Your task to perform on an android device: turn on the 24-hour format for clock Image 0: 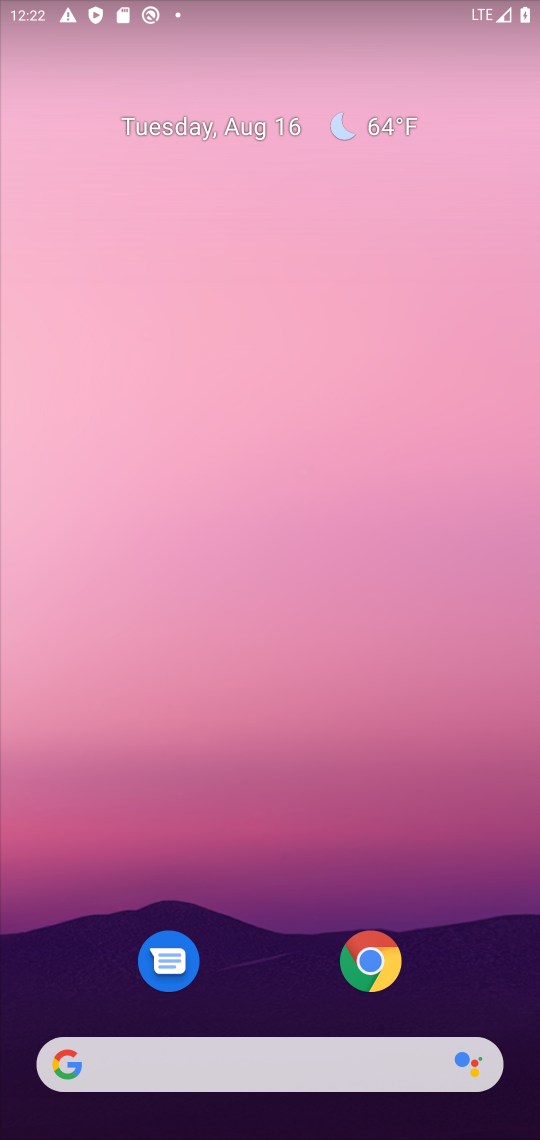
Step 0: drag from (191, 1038) to (258, 109)
Your task to perform on an android device: turn on the 24-hour format for clock Image 1: 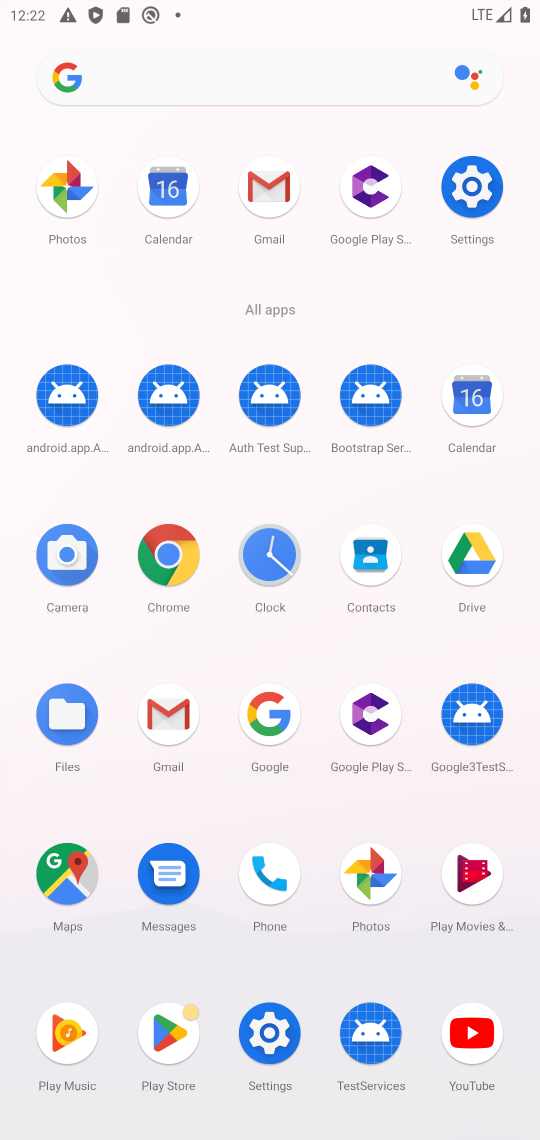
Step 1: click (275, 582)
Your task to perform on an android device: turn on the 24-hour format for clock Image 2: 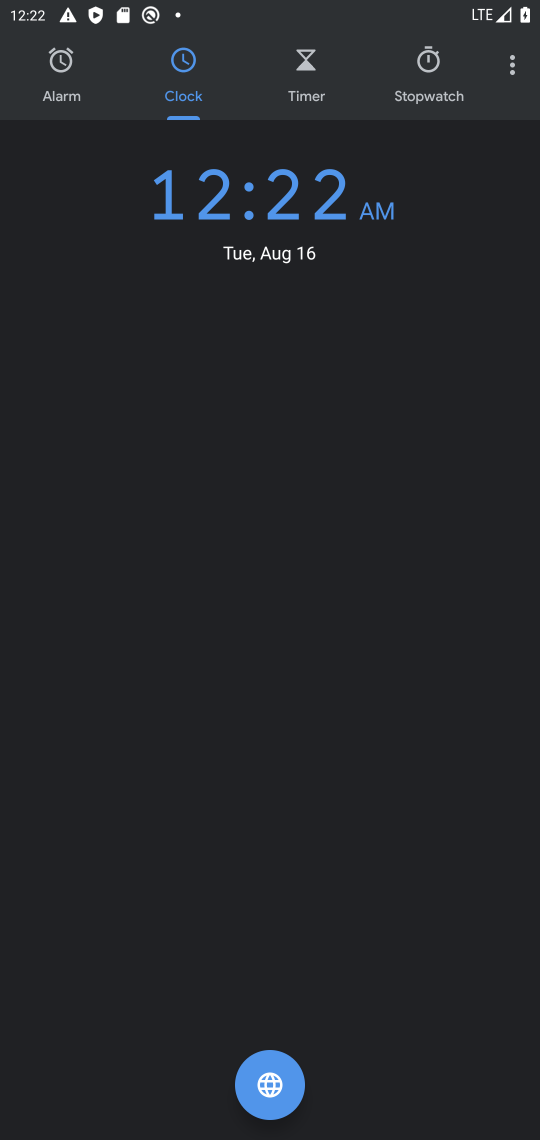
Step 2: click (515, 50)
Your task to perform on an android device: turn on the 24-hour format for clock Image 3: 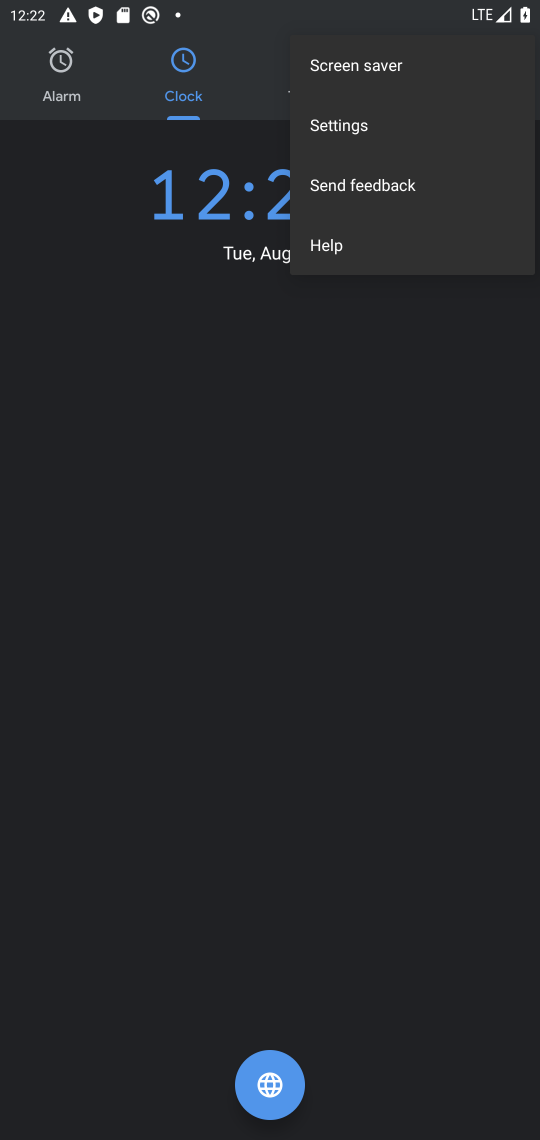
Step 3: click (322, 138)
Your task to perform on an android device: turn on the 24-hour format for clock Image 4: 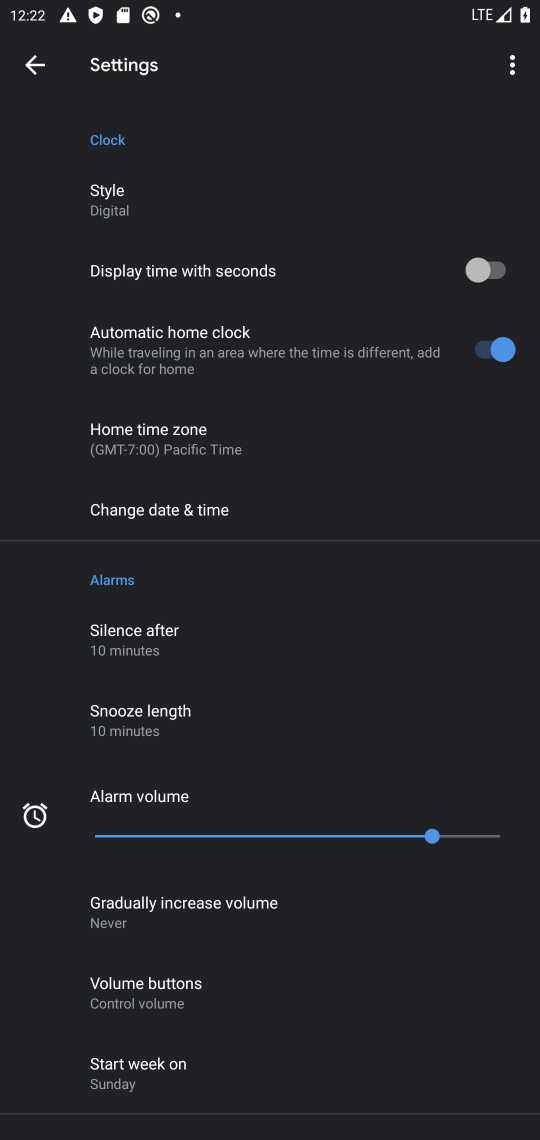
Step 4: click (80, 503)
Your task to perform on an android device: turn on the 24-hour format for clock Image 5: 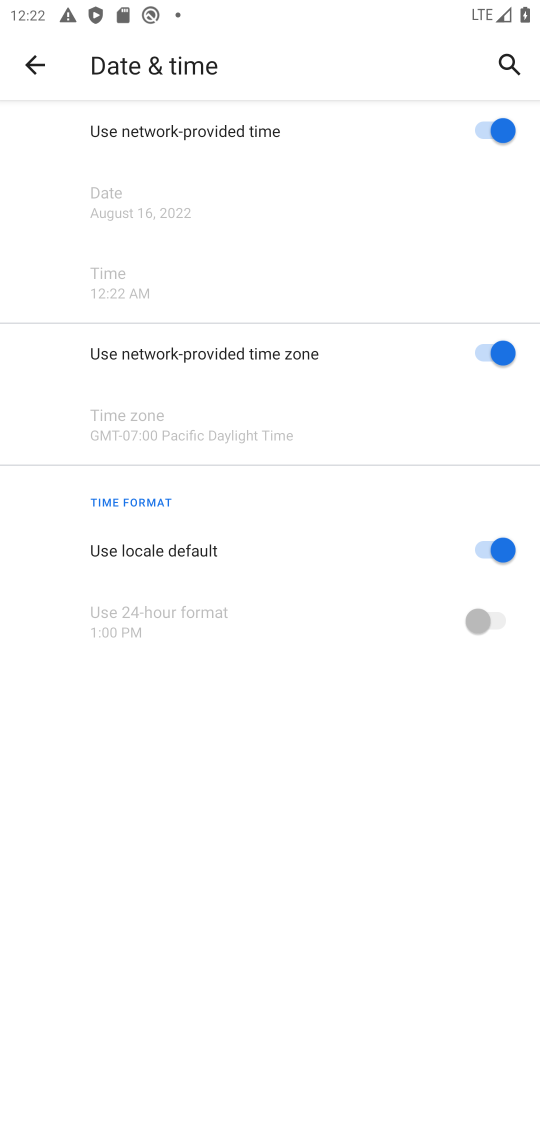
Step 5: click (446, 552)
Your task to perform on an android device: turn on the 24-hour format for clock Image 6: 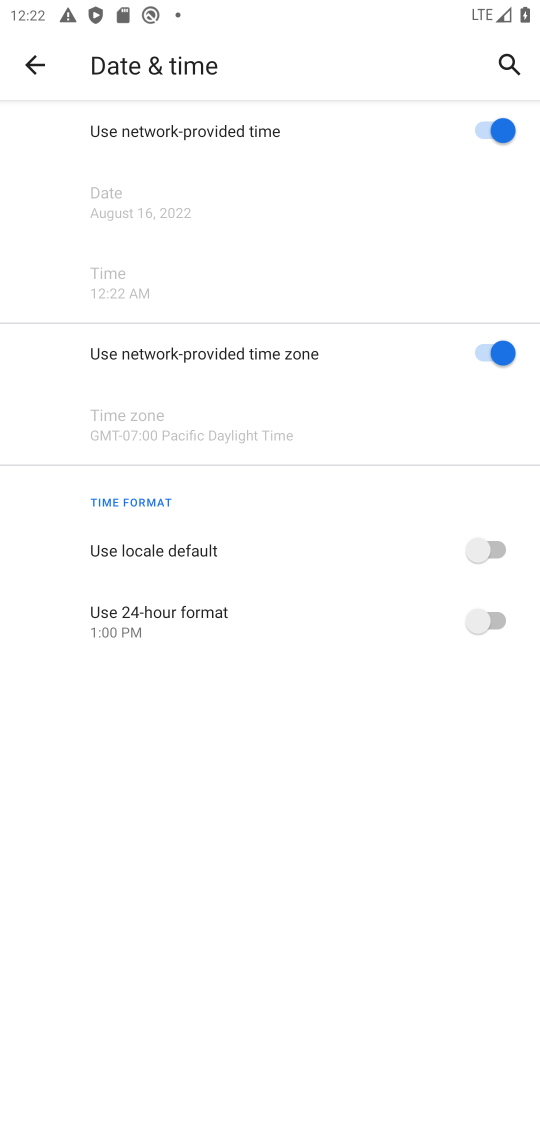
Step 6: click (401, 629)
Your task to perform on an android device: turn on the 24-hour format for clock Image 7: 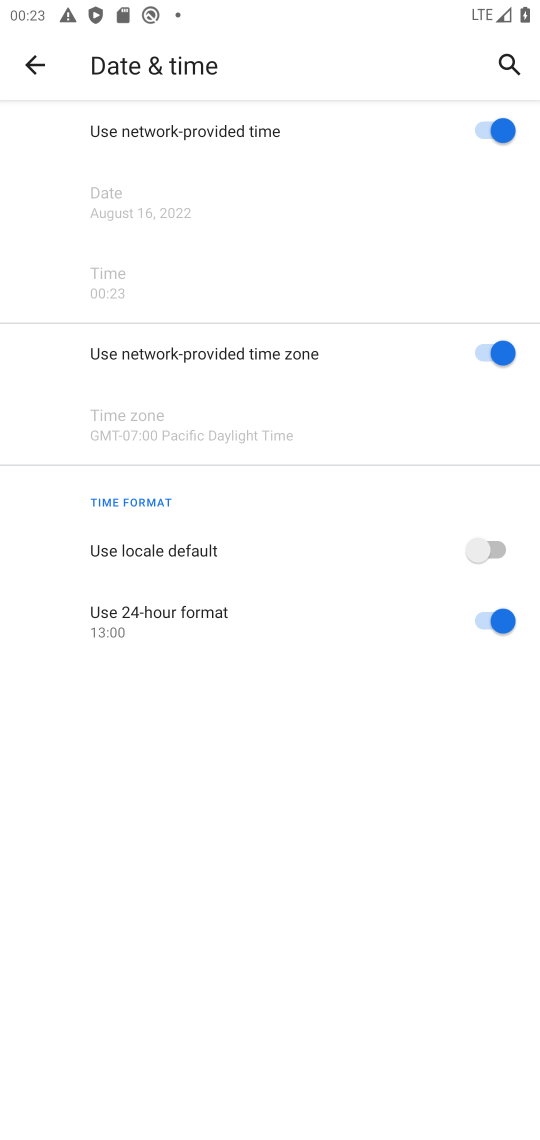
Step 7: task complete